Your task to perform on an android device: turn off translation in the chrome app Image 0: 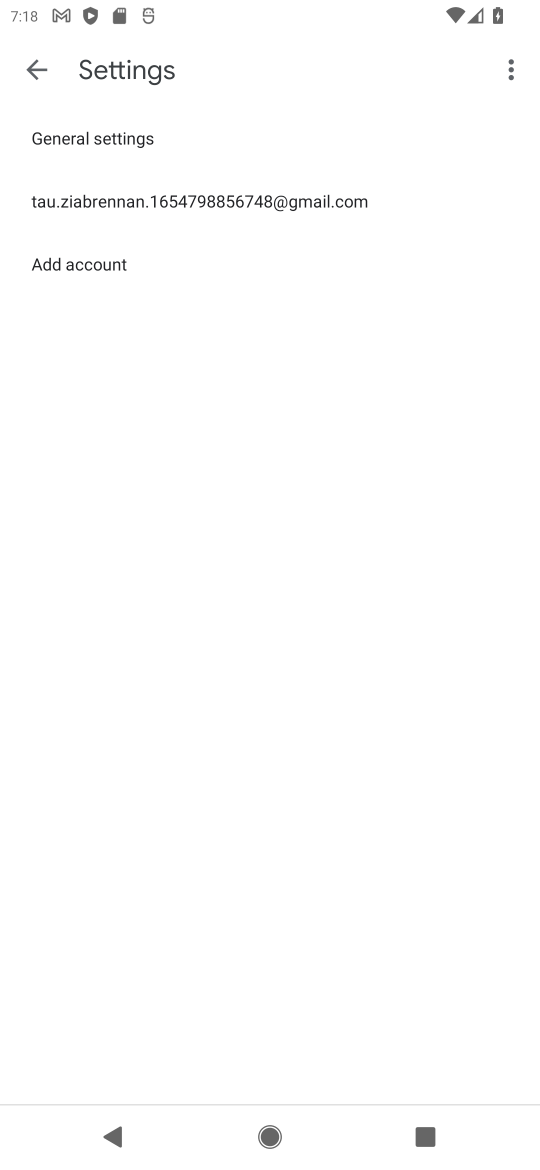
Step 0: press home button
Your task to perform on an android device: turn off translation in the chrome app Image 1: 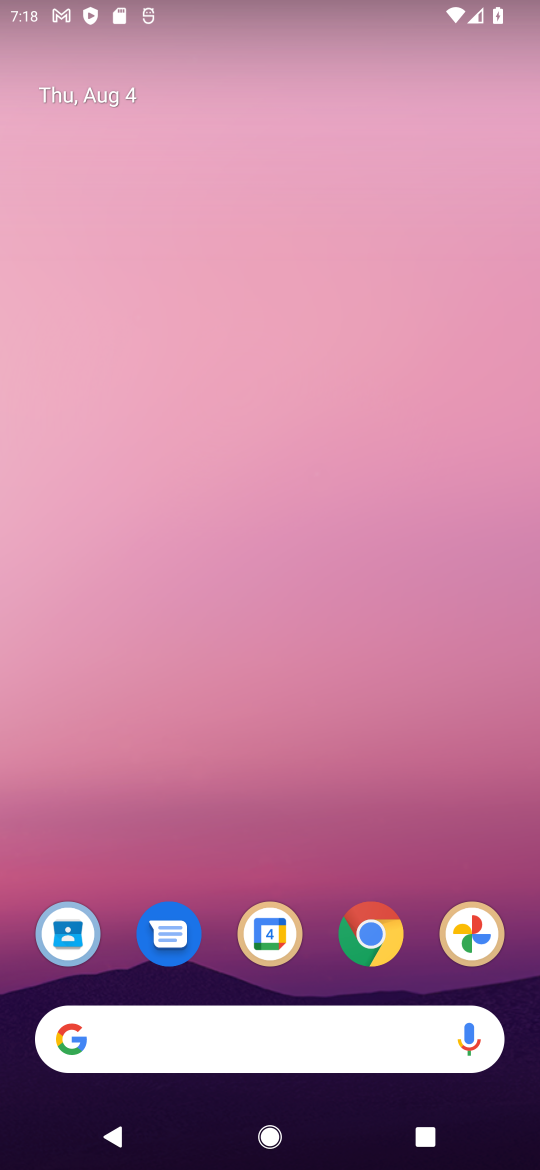
Step 1: click (365, 933)
Your task to perform on an android device: turn off translation in the chrome app Image 2: 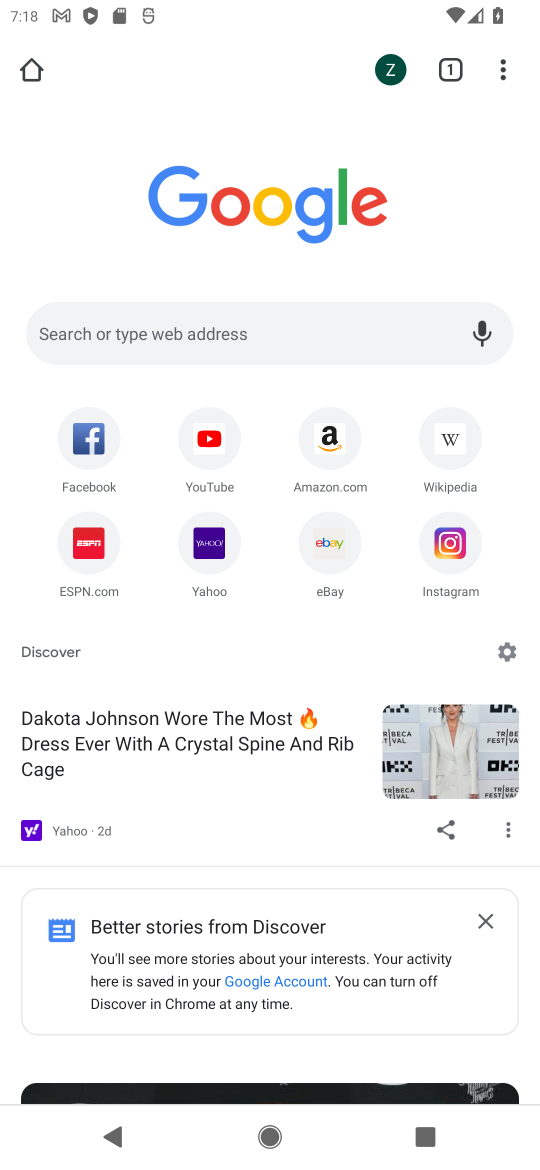
Step 2: drag from (499, 65) to (290, 694)
Your task to perform on an android device: turn off translation in the chrome app Image 3: 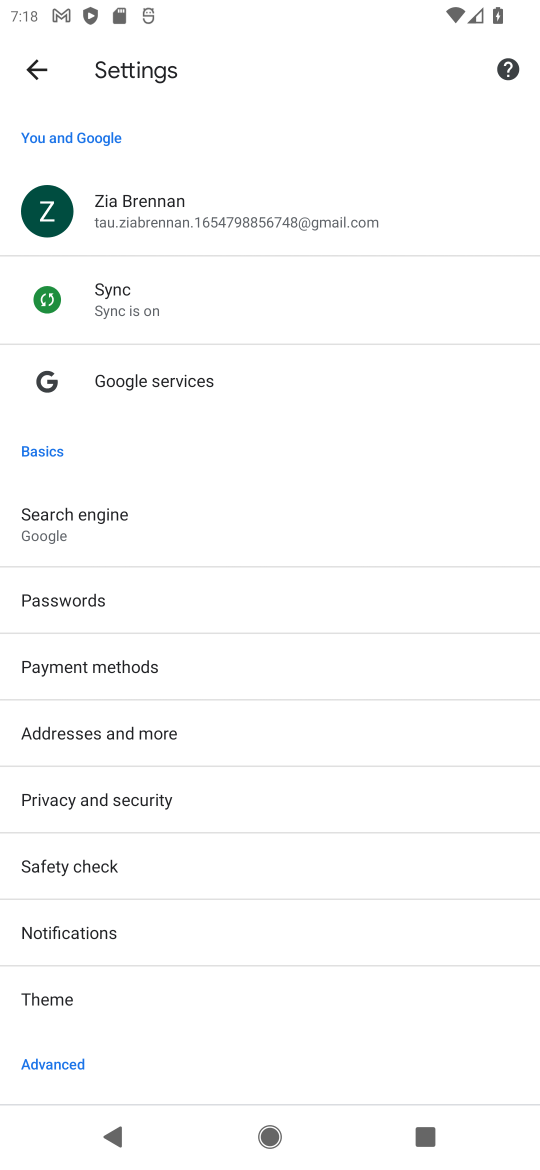
Step 3: drag from (161, 938) to (67, 278)
Your task to perform on an android device: turn off translation in the chrome app Image 4: 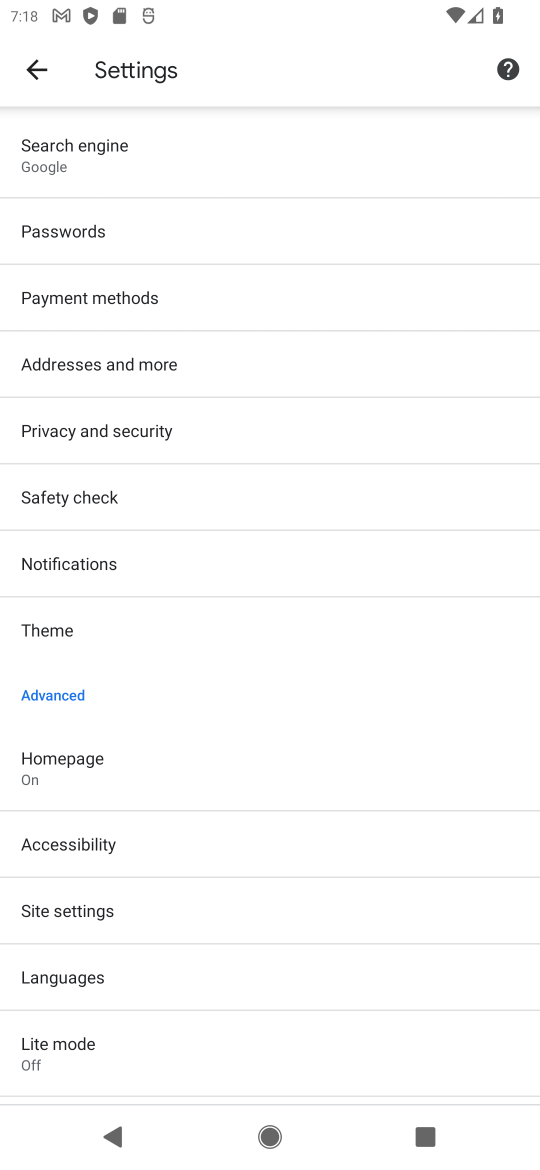
Step 4: click (107, 976)
Your task to perform on an android device: turn off translation in the chrome app Image 5: 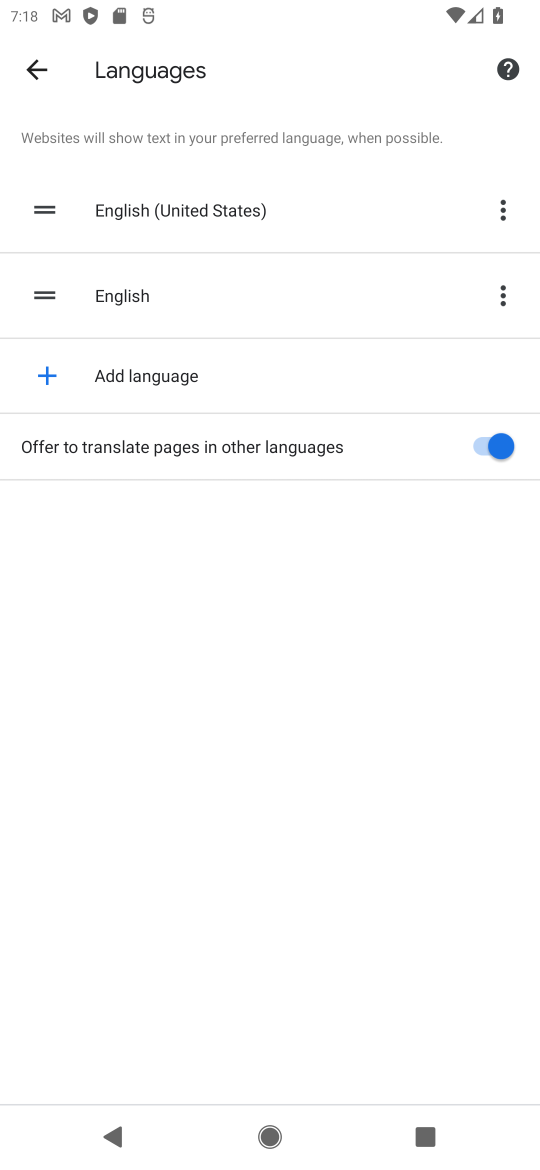
Step 5: click (495, 441)
Your task to perform on an android device: turn off translation in the chrome app Image 6: 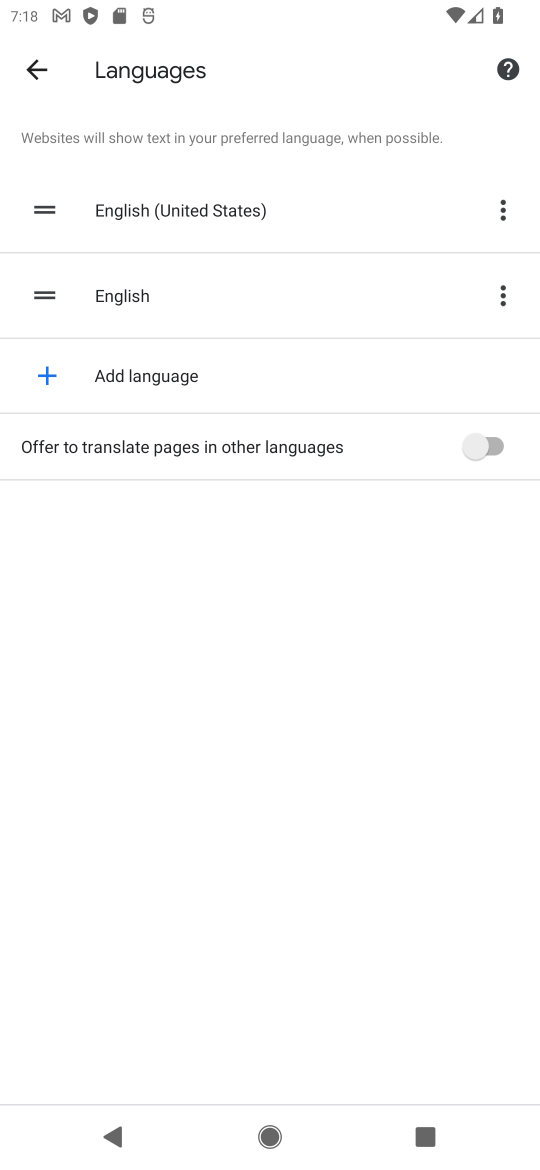
Step 6: task complete